Your task to perform on an android device: turn pop-ups on in chrome Image 0: 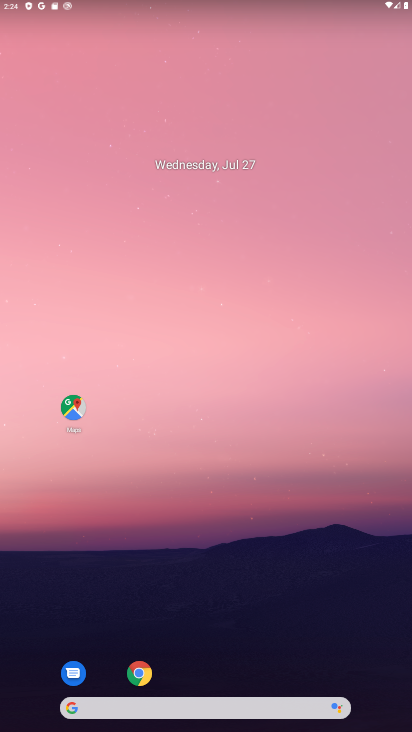
Step 0: click (140, 673)
Your task to perform on an android device: turn pop-ups on in chrome Image 1: 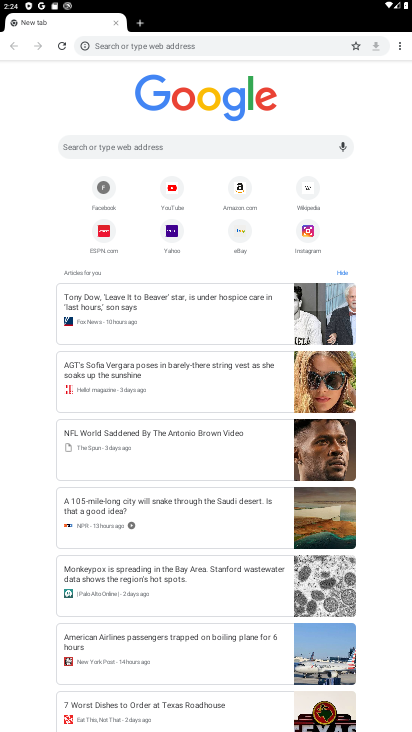
Step 1: click (405, 46)
Your task to perform on an android device: turn pop-ups on in chrome Image 2: 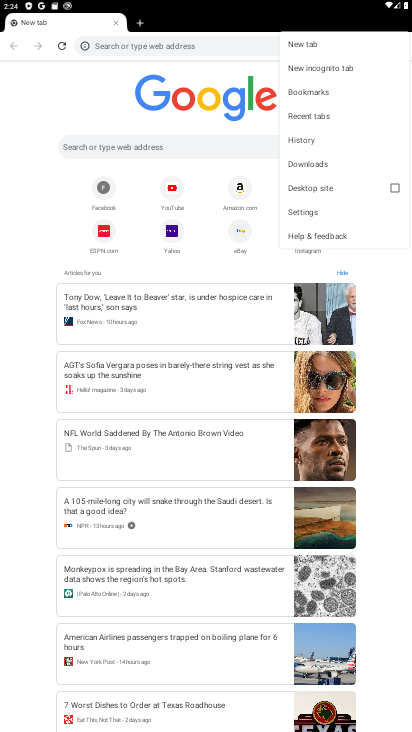
Step 2: click (322, 219)
Your task to perform on an android device: turn pop-ups on in chrome Image 3: 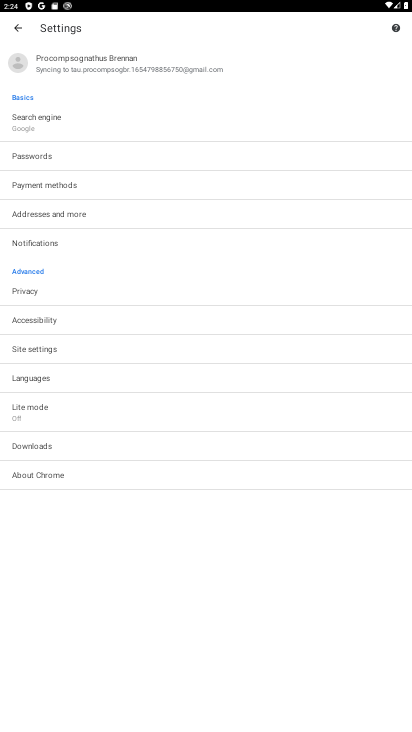
Step 3: click (48, 346)
Your task to perform on an android device: turn pop-ups on in chrome Image 4: 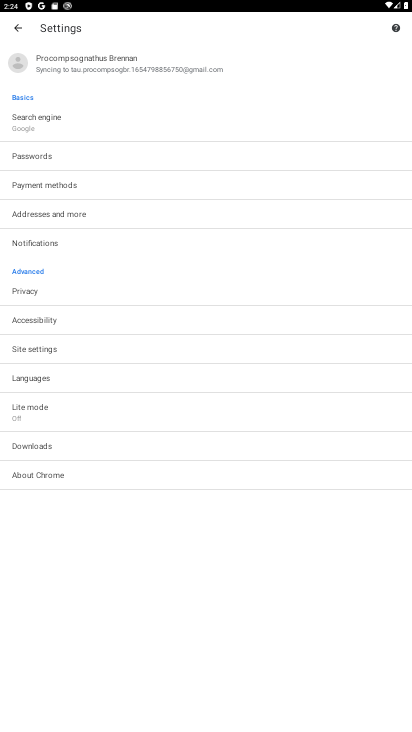
Step 4: click (48, 346)
Your task to perform on an android device: turn pop-ups on in chrome Image 5: 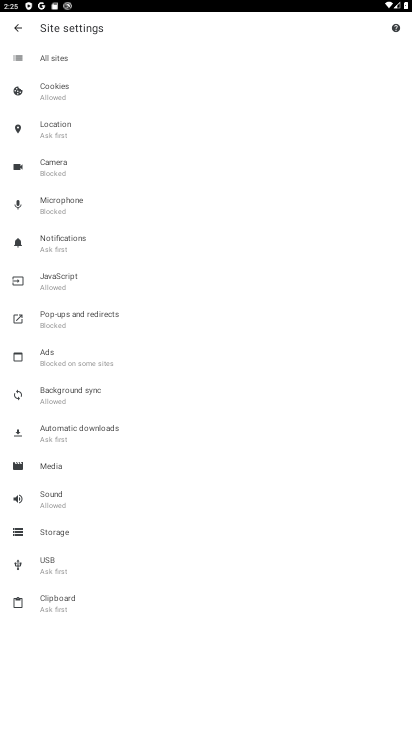
Step 5: click (86, 317)
Your task to perform on an android device: turn pop-ups on in chrome Image 6: 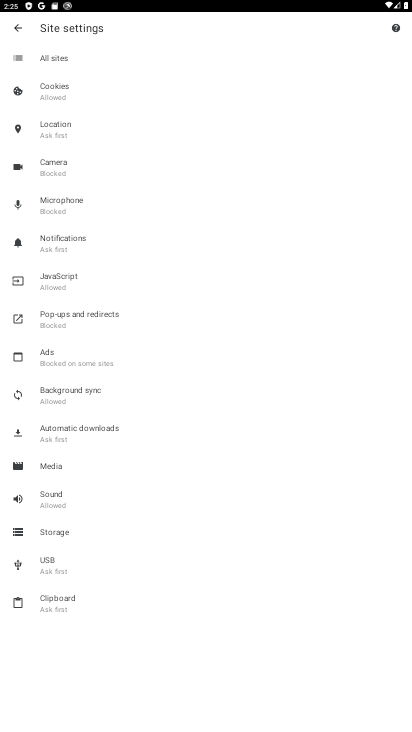
Step 6: click (86, 317)
Your task to perform on an android device: turn pop-ups on in chrome Image 7: 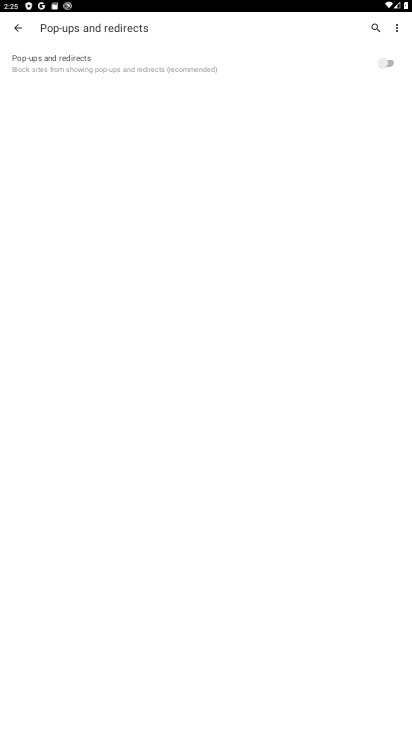
Step 7: click (383, 65)
Your task to perform on an android device: turn pop-ups on in chrome Image 8: 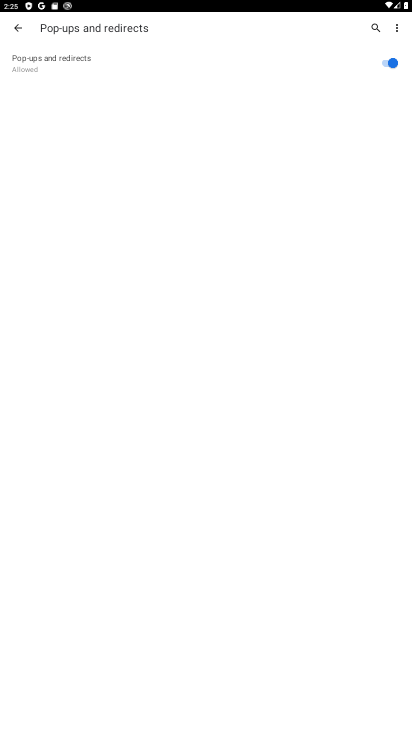
Step 8: task complete